Your task to perform on an android device: turn off location Image 0: 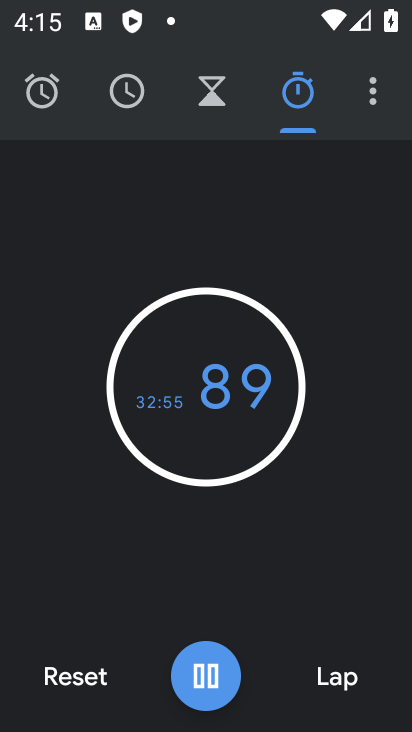
Step 0: press home button
Your task to perform on an android device: turn off location Image 1: 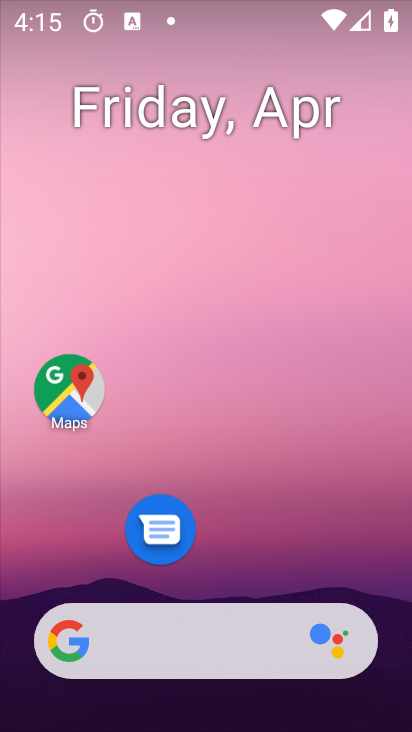
Step 1: drag from (248, 600) to (313, 124)
Your task to perform on an android device: turn off location Image 2: 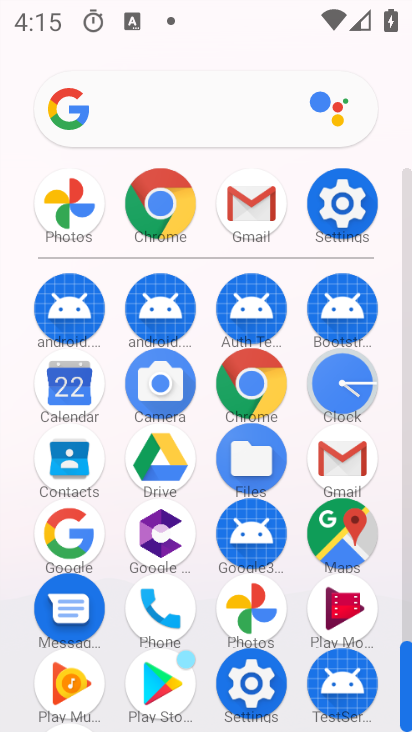
Step 2: click (339, 232)
Your task to perform on an android device: turn off location Image 3: 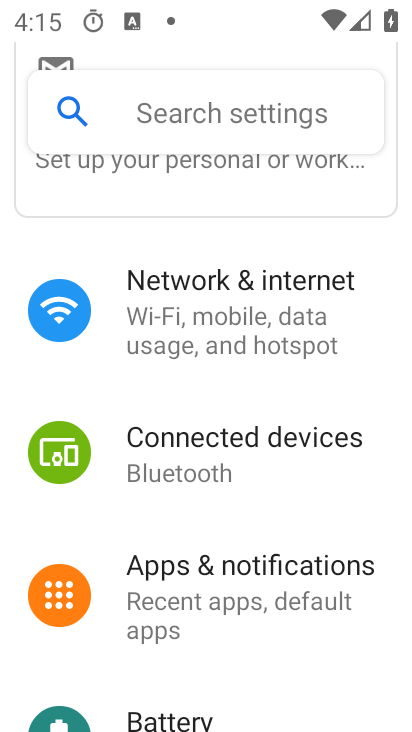
Step 3: drag from (260, 495) to (305, 224)
Your task to perform on an android device: turn off location Image 4: 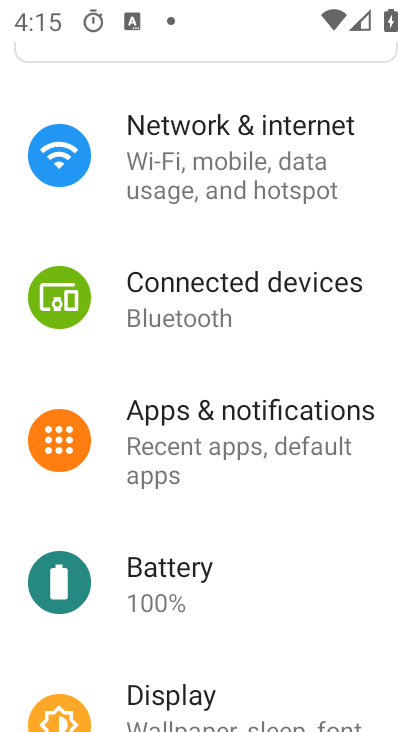
Step 4: click (320, 177)
Your task to perform on an android device: turn off location Image 5: 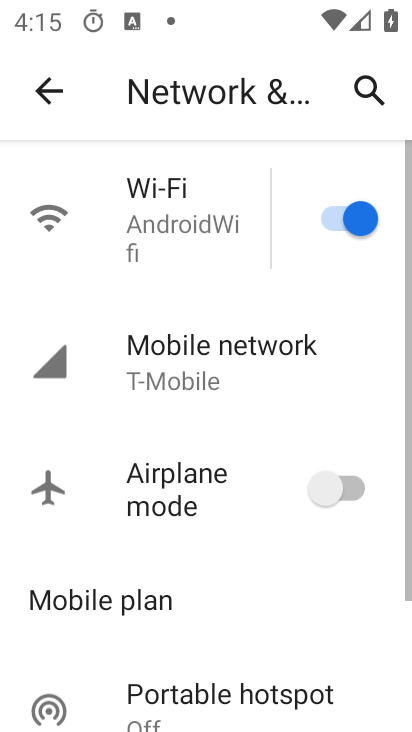
Step 5: drag from (269, 544) to (301, 237)
Your task to perform on an android device: turn off location Image 6: 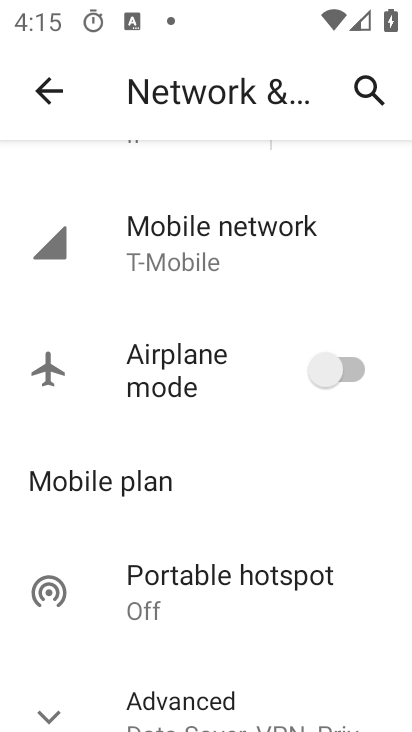
Step 6: drag from (234, 561) to (300, 282)
Your task to perform on an android device: turn off location Image 7: 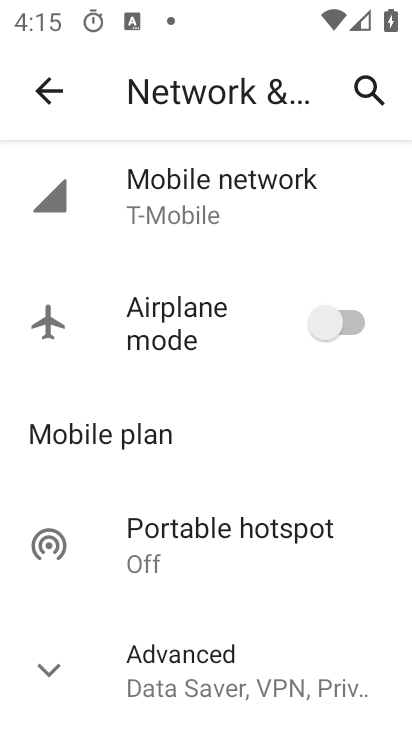
Step 7: click (58, 104)
Your task to perform on an android device: turn off location Image 8: 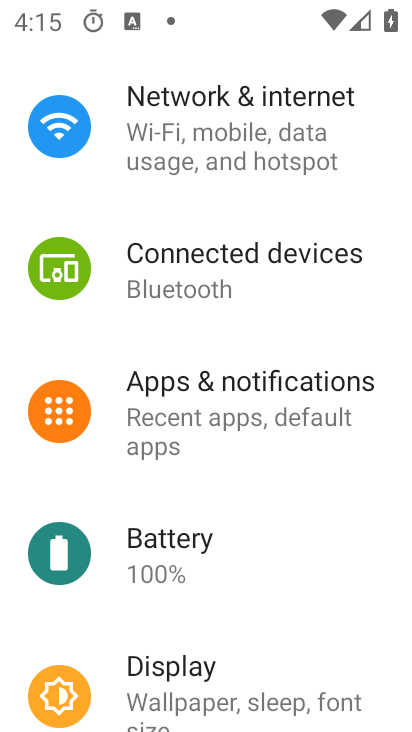
Step 8: drag from (191, 486) to (247, 218)
Your task to perform on an android device: turn off location Image 9: 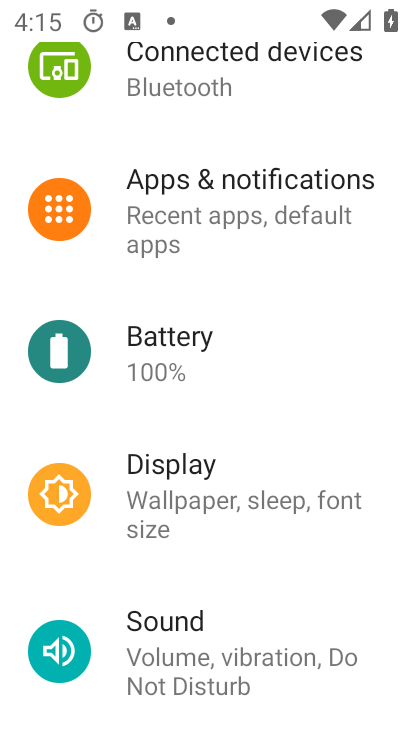
Step 9: drag from (230, 557) to (323, 205)
Your task to perform on an android device: turn off location Image 10: 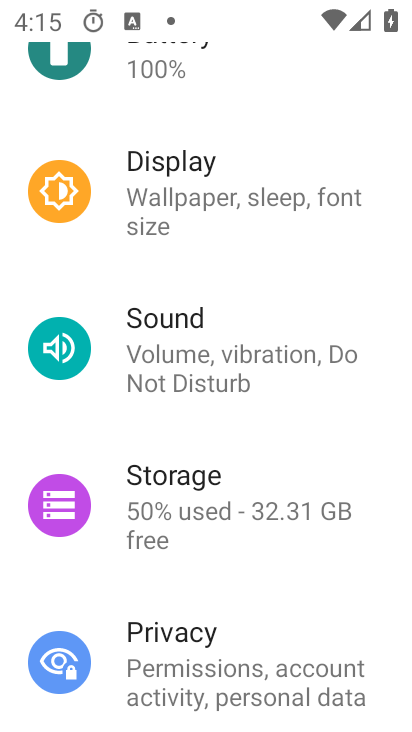
Step 10: drag from (246, 603) to (311, 217)
Your task to perform on an android device: turn off location Image 11: 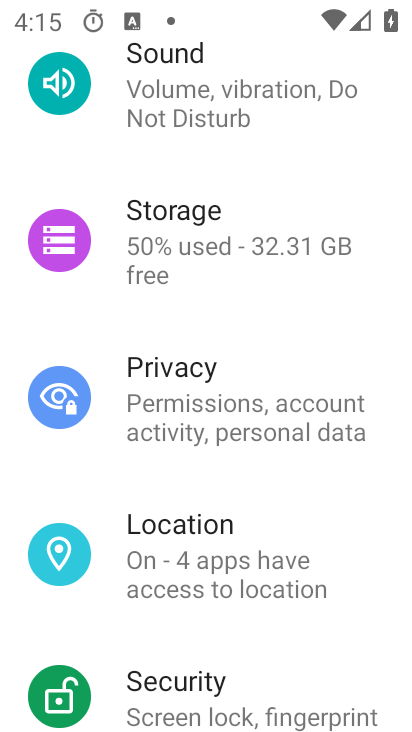
Step 11: click (255, 556)
Your task to perform on an android device: turn off location Image 12: 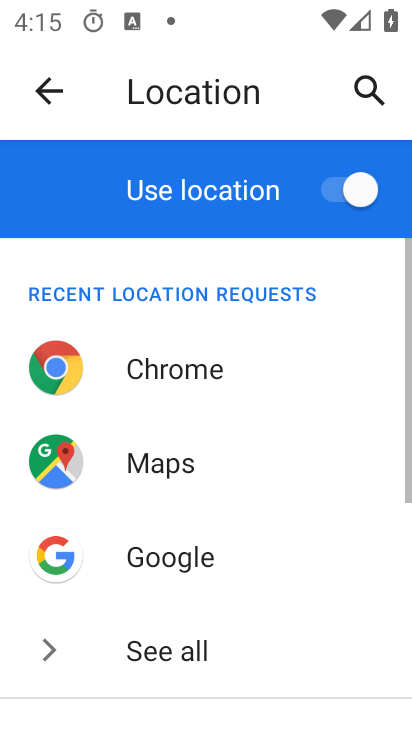
Step 12: drag from (260, 504) to (305, 296)
Your task to perform on an android device: turn off location Image 13: 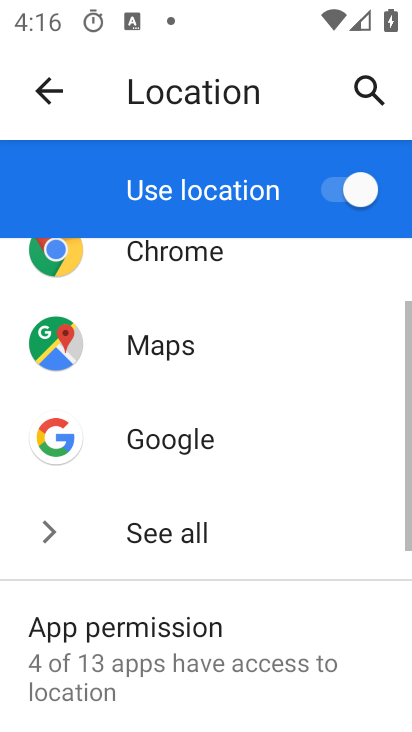
Step 13: click (325, 198)
Your task to perform on an android device: turn off location Image 14: 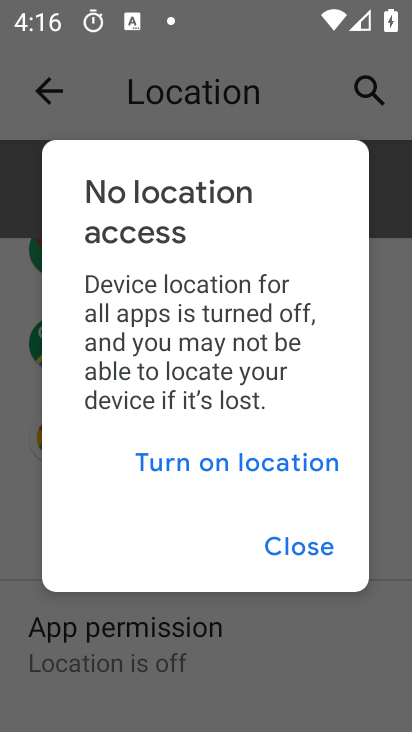
Step 14: task complete